Your task to perform on an android device: What's a good restaurant near me? Image 0: 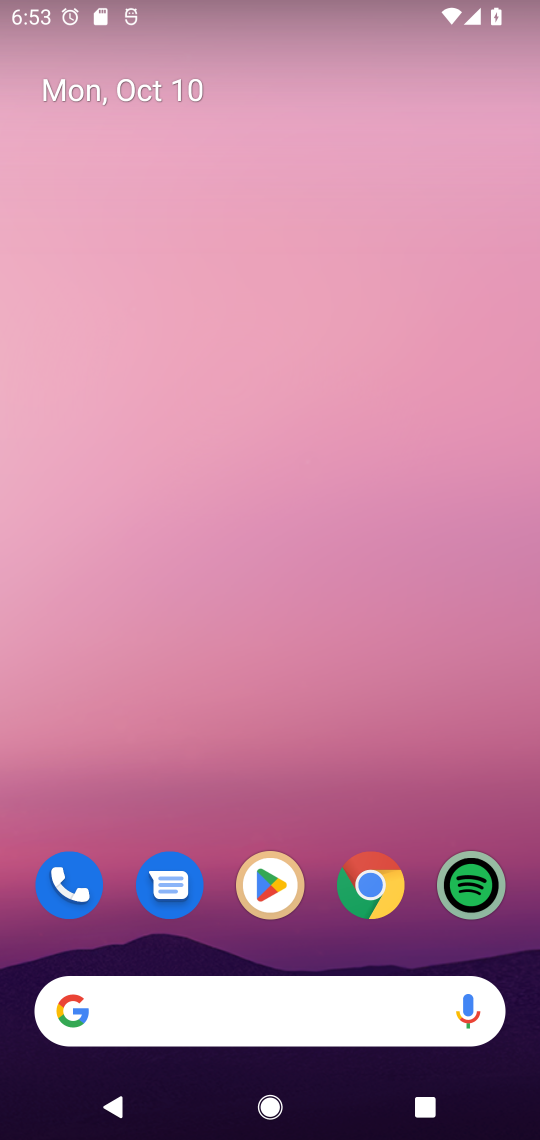
Step 0: click (380, 904)
Your task to perform on an android device: What's a good restaurant near me? Image 1: 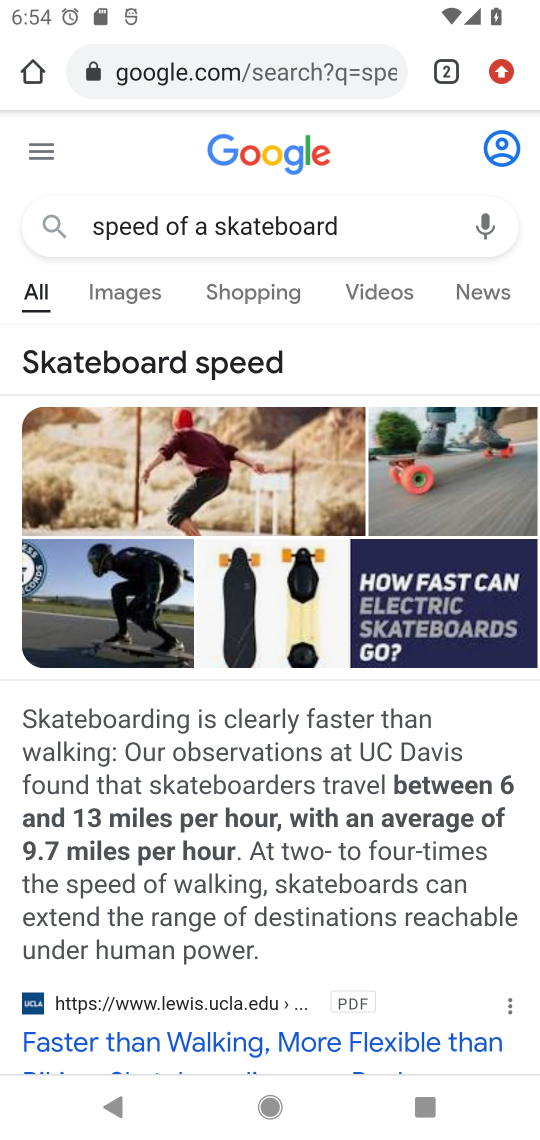
Step 1: click (314, 73)
Your task to perform on an android device: What's a good restaurant near me? Image 2: 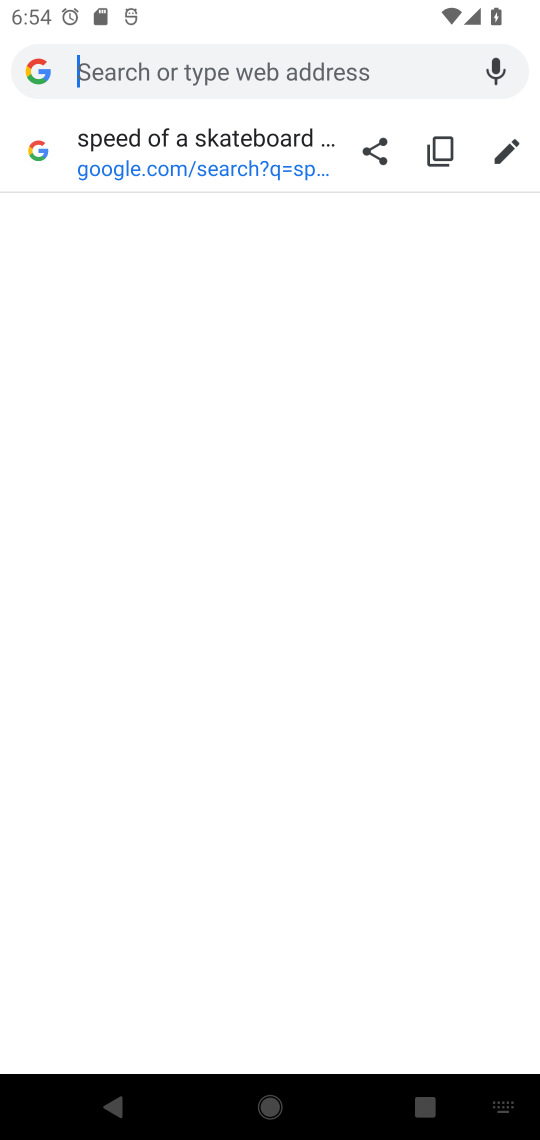
Step 2: type "good restaurant near me"
Your task to perform on an android device: What's a good restaurant near me? Image 3: 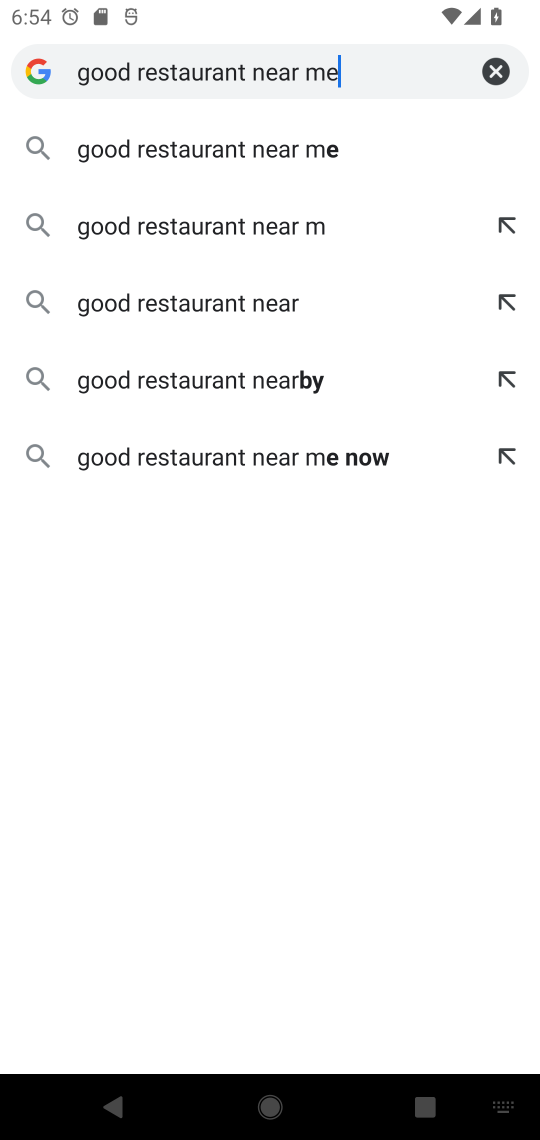
Step 3: type ""
Your task to perform on an android device: What's a good restaurant near me? Image 4: 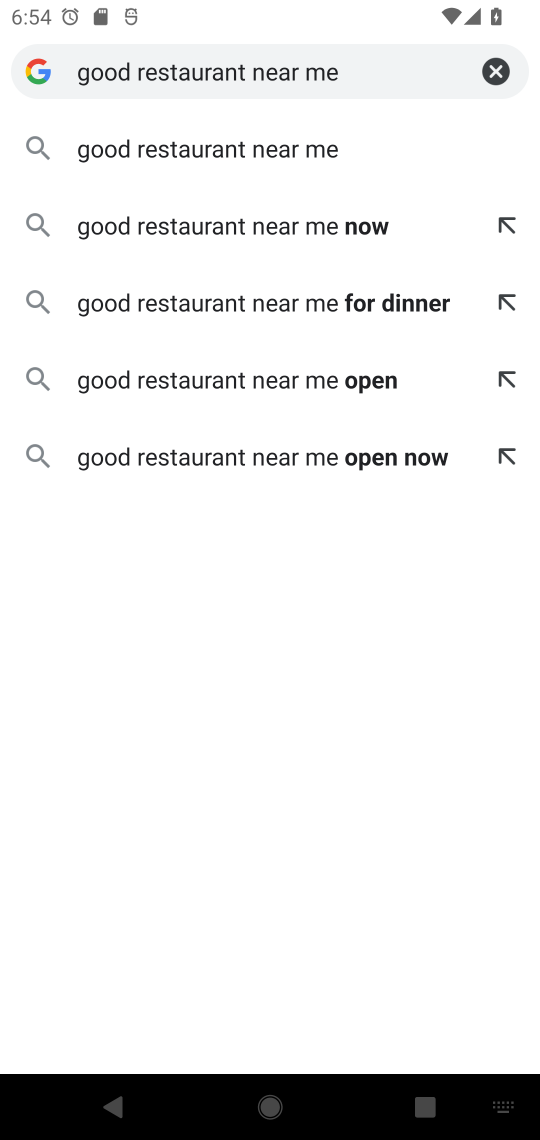
Step 4: click (271, 155)
Your task to perform on an android device: What's a good restaurant near me? Image 5: 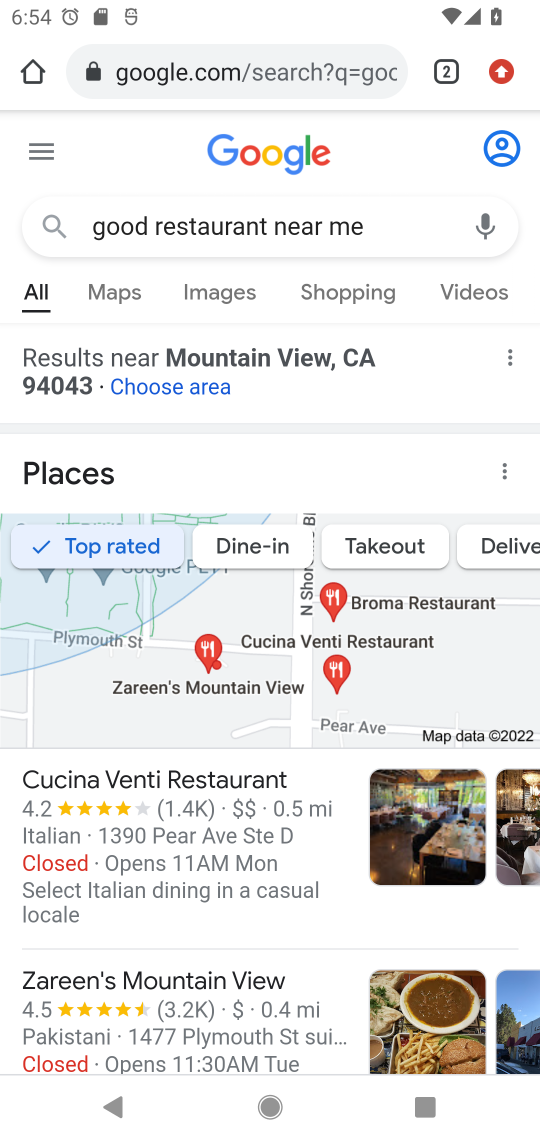
Step 5: drag from (217, 1021) to (196, 518)
Your task to perform on an android device: What's a good restaurant near me? Image 6: 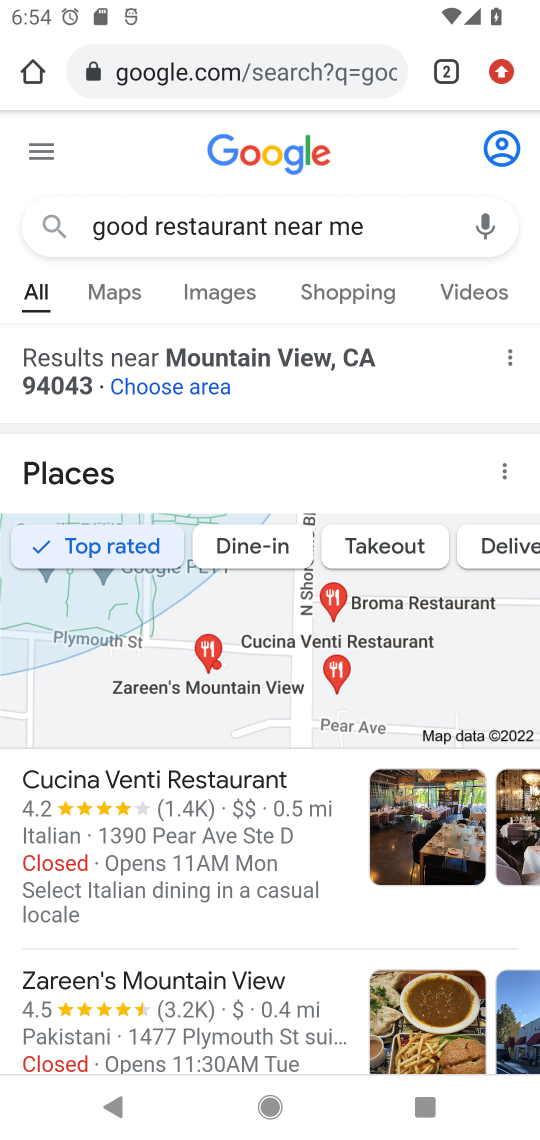
Step 6: drag from (227, 864) to (211, 482)
Your task to perform on an android device: What's a good restaurant near me? Image 7: 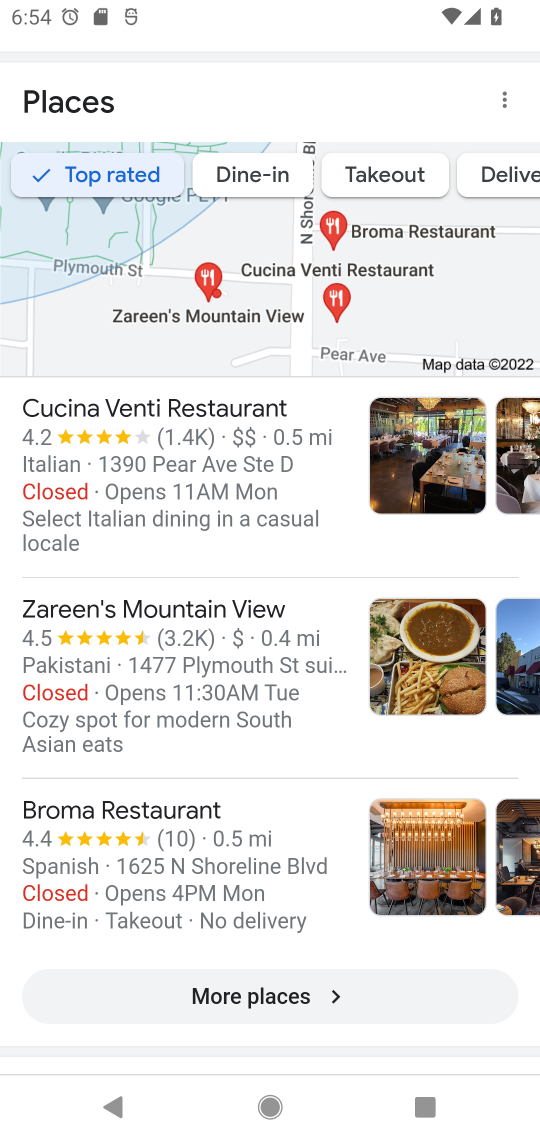
Step 7: click (269, 993)
Your task to perform on an android device: What's a good restaurant near me? Image 8: 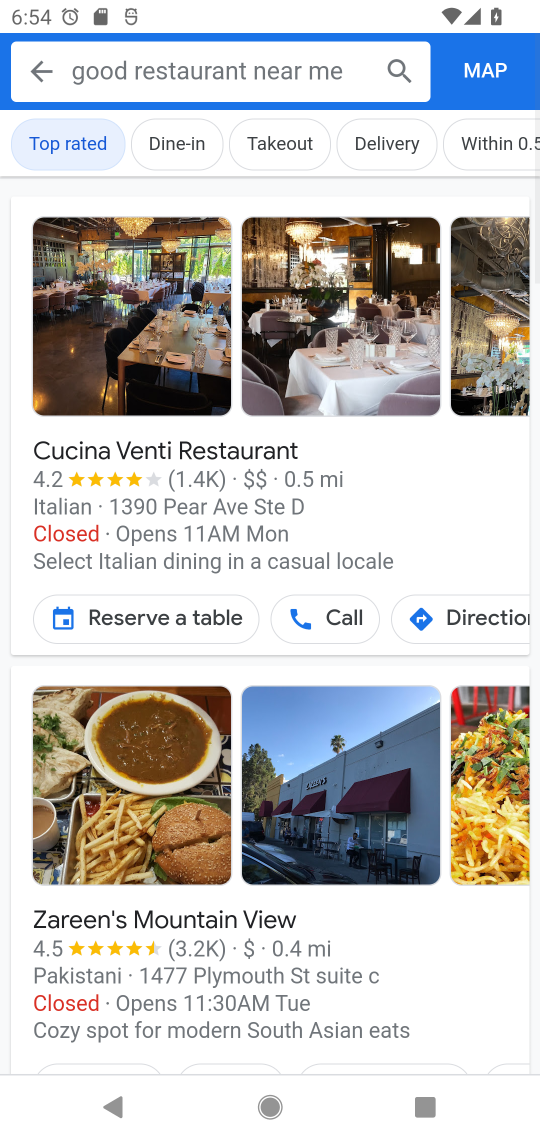
Step 8: task complete